Your task to perform on an android device: Go to internet settings Image 0: 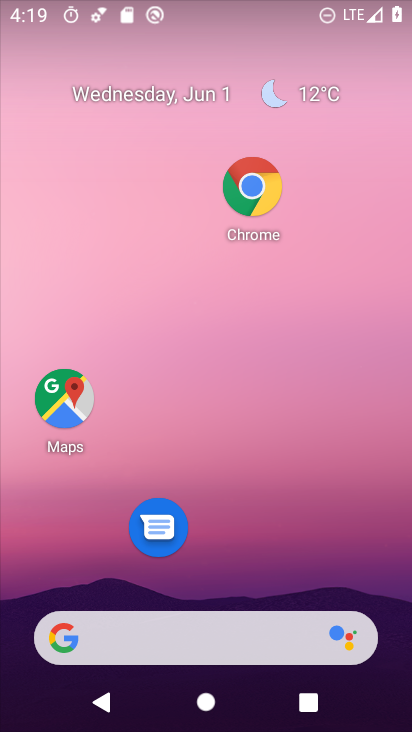
Step 0: drag from (234, 647) to (236, 12)
Your task to perform on an android device: Go to internet settings Image 1: 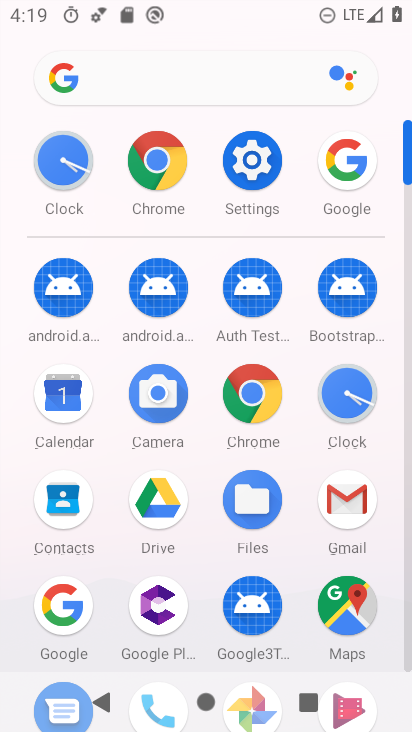
Step 1: click (238, 178)
Your task to perform on an android device: Go to internet settings Image 2: 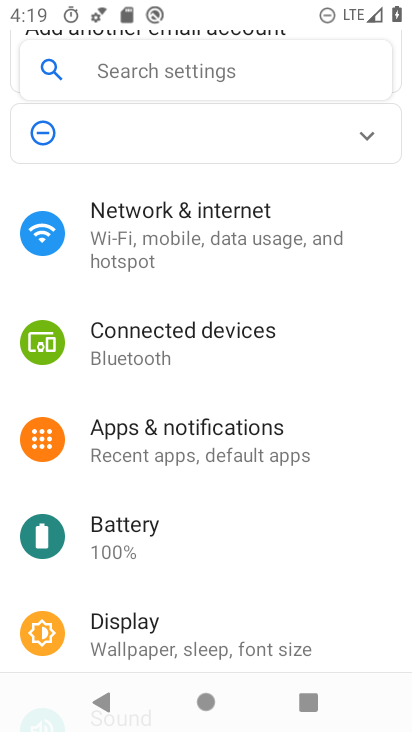
Step 2: click (214, 248)
Your task to perform on an android device: Go to internet settings Image 3: 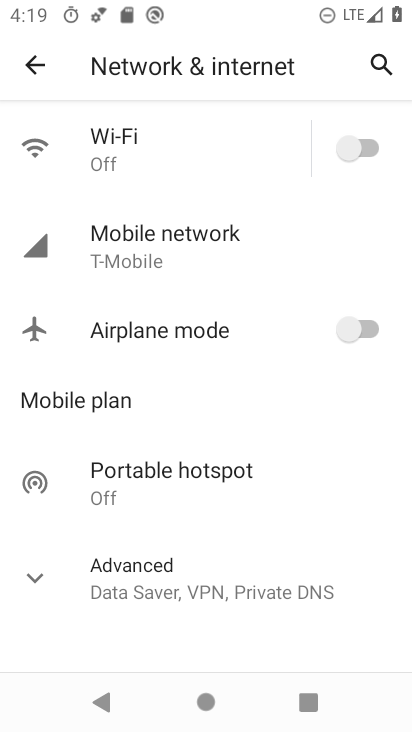
Step 3: click (246, 244)
Your task to perform on an android device: Go to internet settings Image 4: 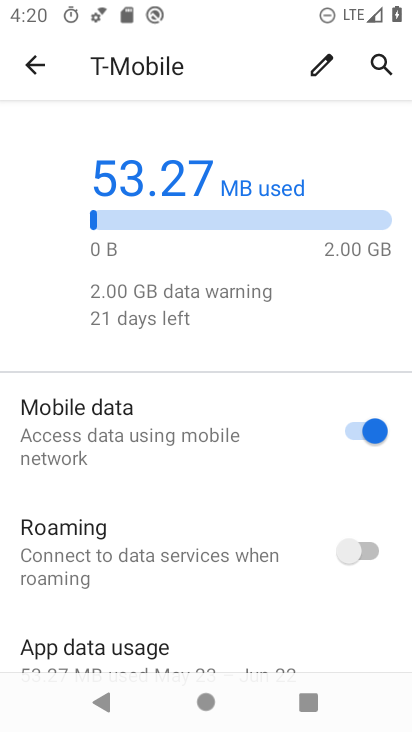
Step 4: task complete